Your task to perform on an android device: Go to Google Image 0: 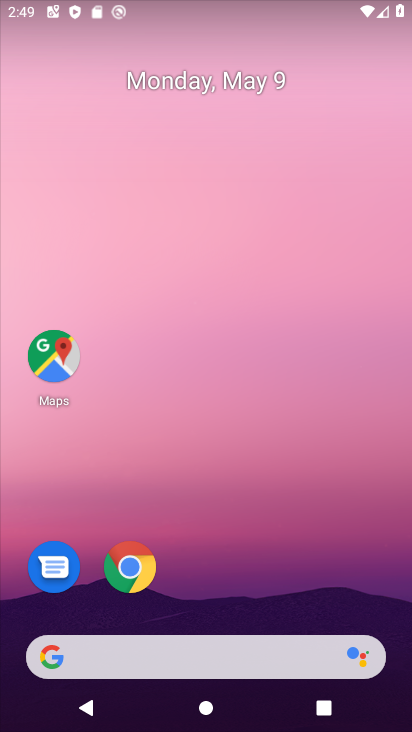
Step 0: drag from (230, 581) to (329, 95)
Your task to perform on an android device: Go to Google Image 1: 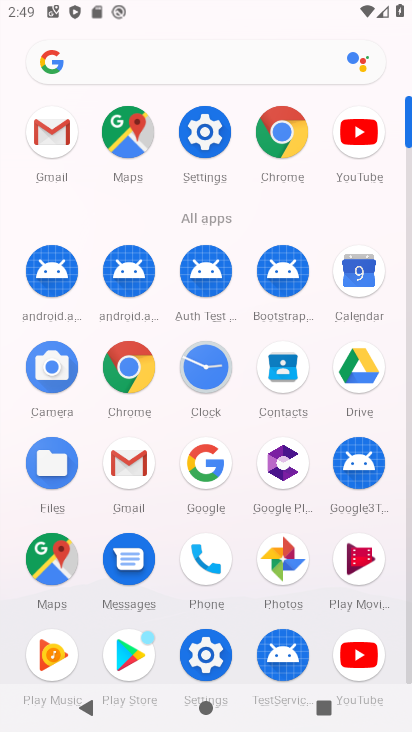
Step 1: click (207, 462)
Your task to perform on an android device: Go to Google Image 2: 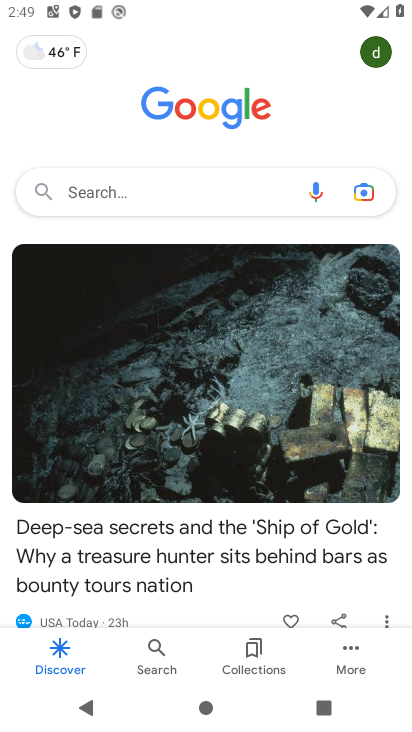
Step 2: task complete